Your task to perform on an android device: change the upload size in google photos Image 0: 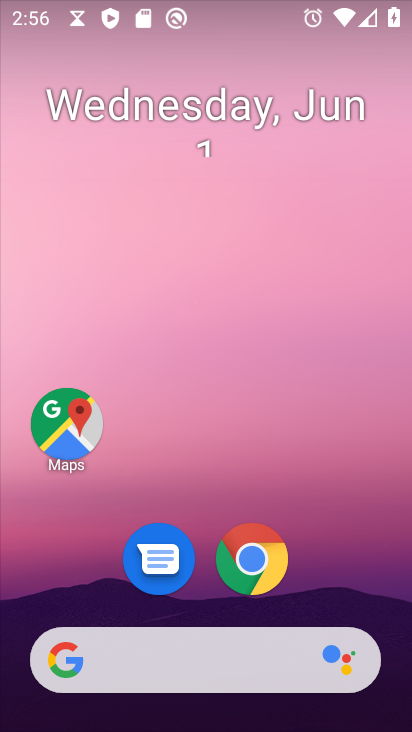
Step 0: drag from (225, 379) to (229, 10)
Your task to perform on an android device: change the upload size in google photos Image 1: 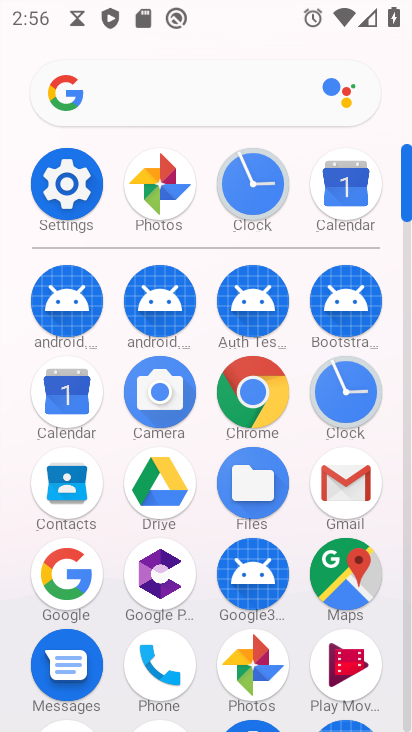
Step 1: click (167, 187)
Your task to perform on an android device: change the upload size in google photos Image 2: 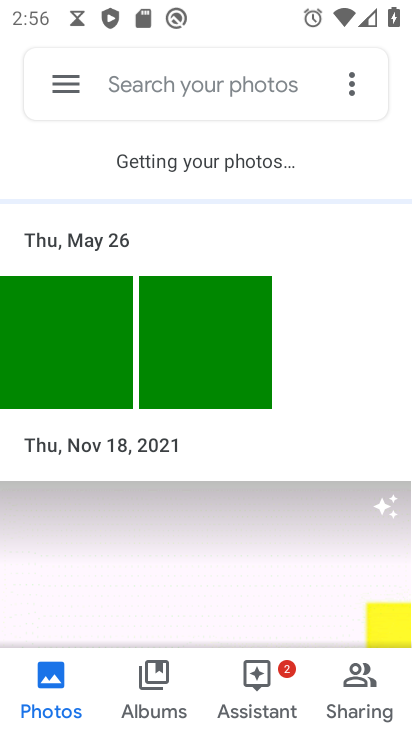
Step 2: click (69, 72)
Your task to perform on an android device: change the upload size in google photos Image 3: 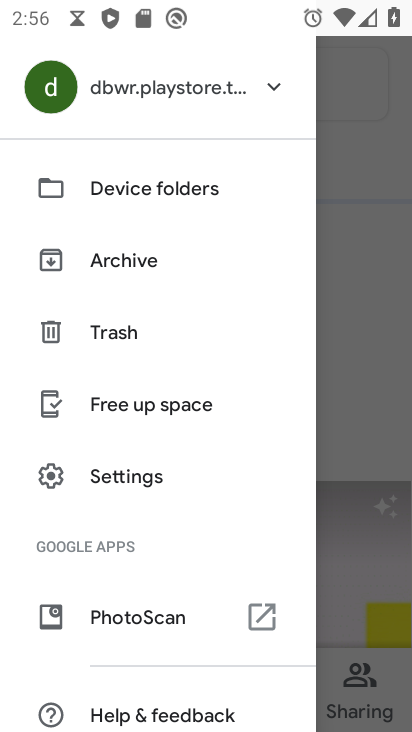
Step 3: click (136, 483)
Your task to perform on an android device: change the upload size in google photos Image 4: 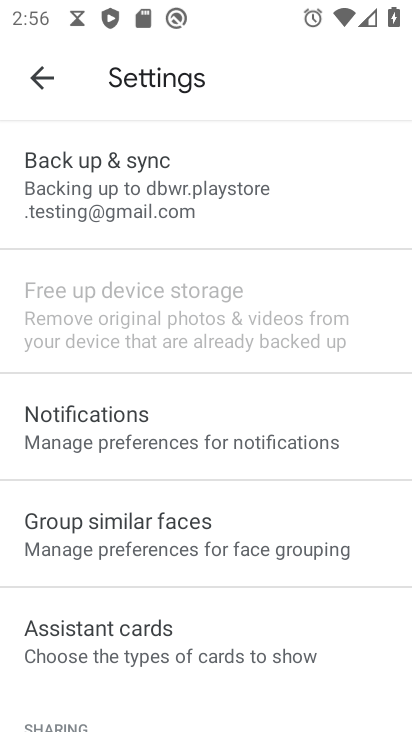
Step 4: click (128, 208)
Your task to perform on an android device: change the upload size in google photos Image 5: 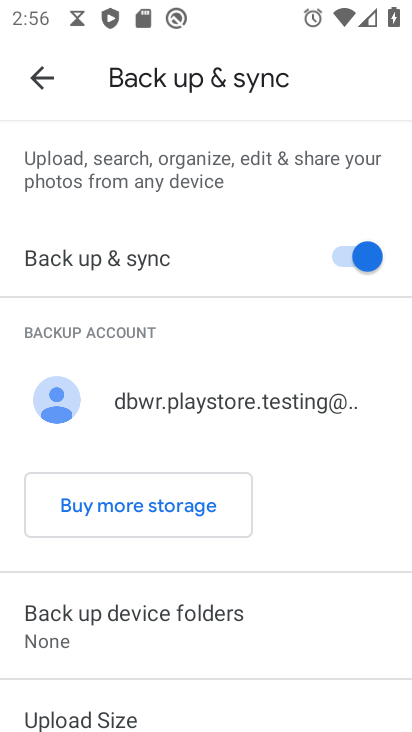
Step 5: drag from (151, 670) to (142, 121)
Your task to perform on an android device: change the upload size in google photos Image 6: 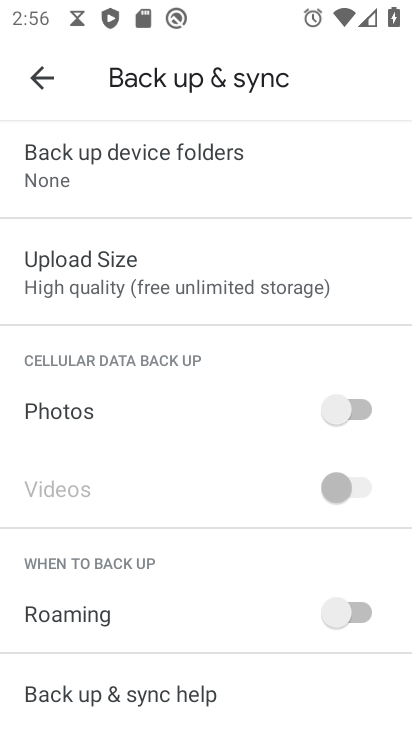
Step 6: click (139, 298)
Your task to perform on an android device: change the upload size in google photos Image 7: 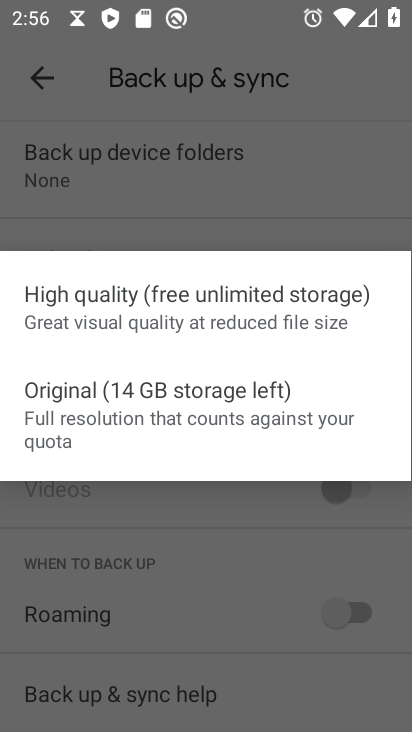
Step 7: click (105, 443)
Your task to perform on an android device: change the upload size in google photos Image 8: 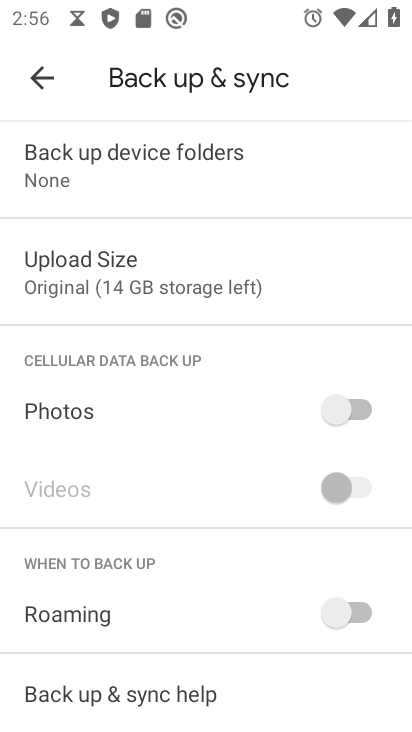
Step 8: task complete